Your task to perform on an android device: make emails show in primary in the gmail app Image 0: 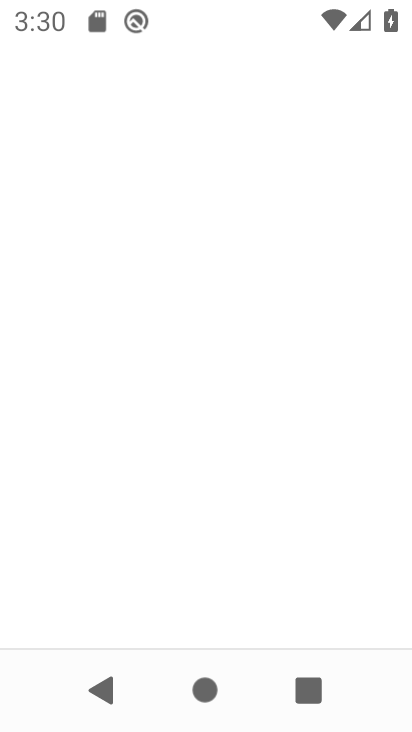
Step 0: drag from (208, 529) to (244, 103)
Your task to perform on an android device: make emails show in primary in the gmail app Image 1: 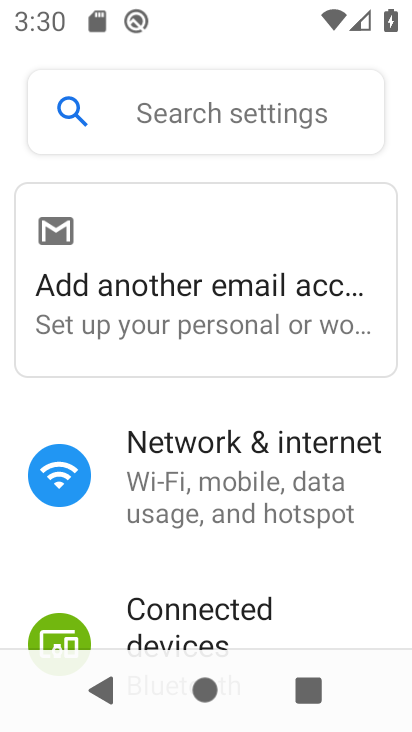
Step 1: press home button
Your task to perform on an android device: make emails show in primary in the gmail app Image 2: 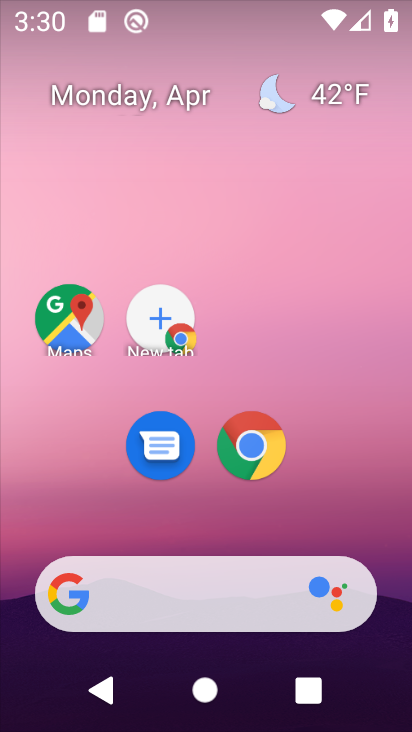
Step 2: drag from (215, 513) to (241, 73)
Your task to perform on an android device: make emails show in primary in the gmail app Image 3: 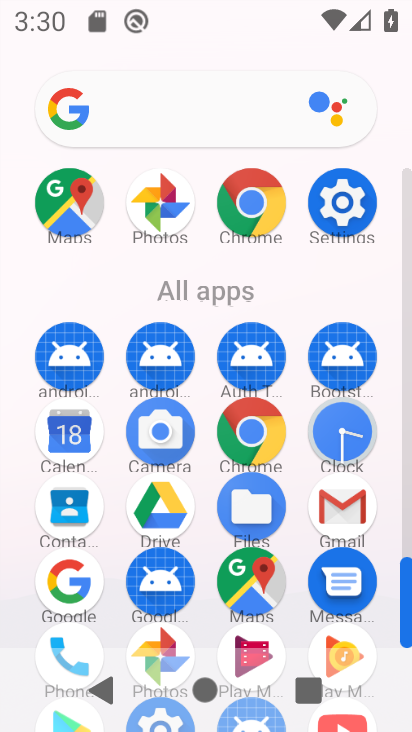
Step 3: click (339, 493)
Your task to perform on an android device: make emails show in primary in the gmail app Image 4: 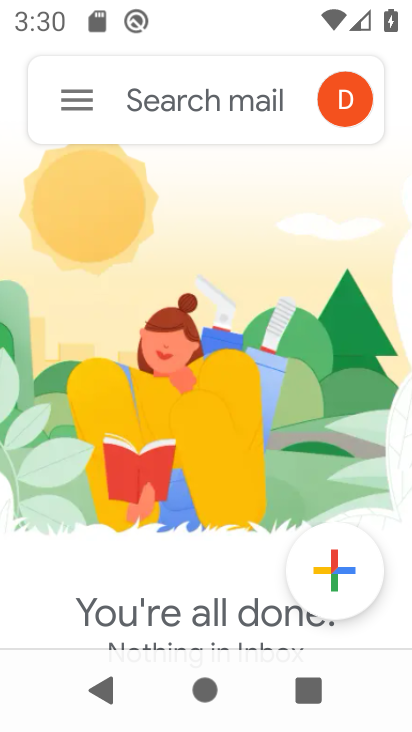
Step 4: click (66, 95)
Your task to perform on an android device: make emails show in primary in the gmail app Image 5: 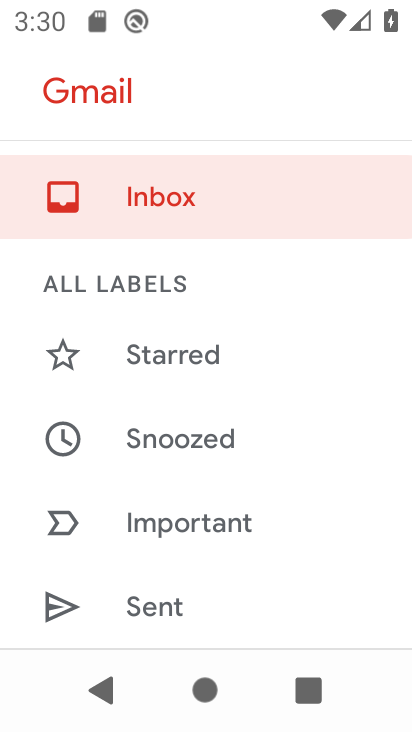
Step 5: drag from (208, 583) to (238, 70)
Your task to perform on an android device: make emails show in primary in the gmail app Image 6: 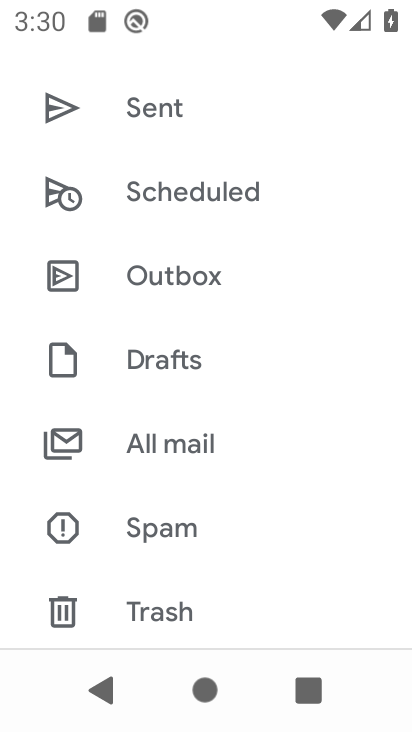
Step 6: drag from (218, 594) to (235, 119)
Your task to perform on an android device: make emails show in primary in the gmail app Image 7: 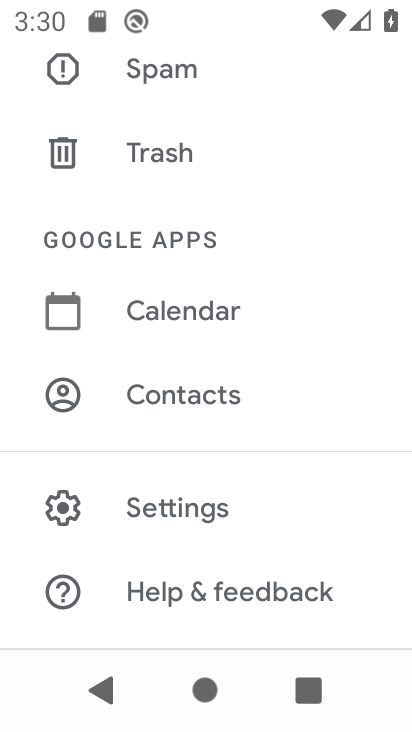
Step 7: click (231, 502)
Your task to perform on an android device: make emails show in primary in the gmail app Image 8: 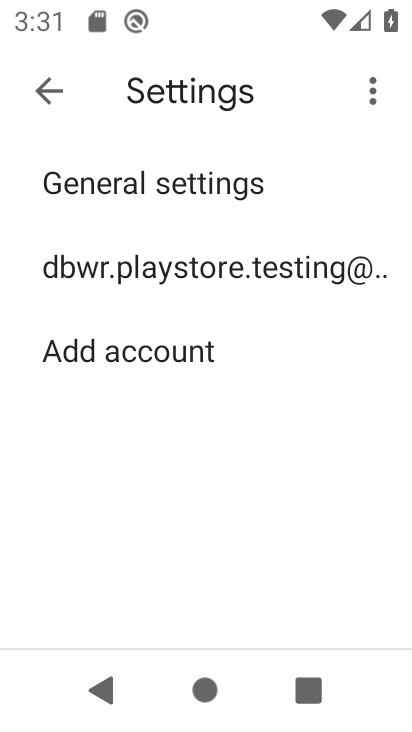
Step 8: click (248, 265)
Your task to perform on an android device: make emails show in primary in the gmail app Image 9: 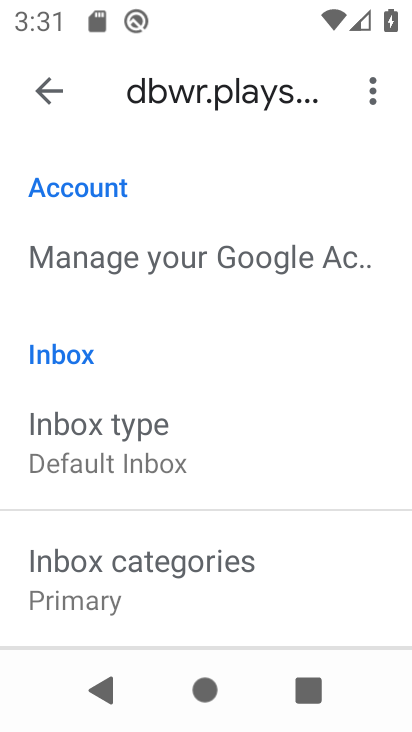
Step 9: click (189, 457)
Your task to perform on an android device: make emails show in primary in the gmail app Image 10: 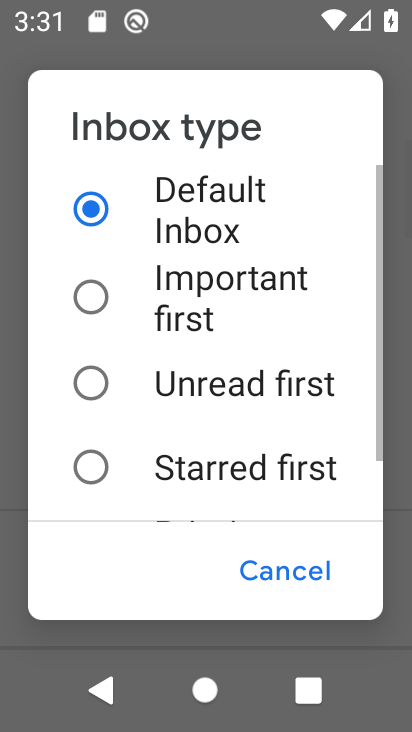
Step 10: click (106, 200)
Your task to perform on an android device: make emails show in primary in the gmail app Image 11: 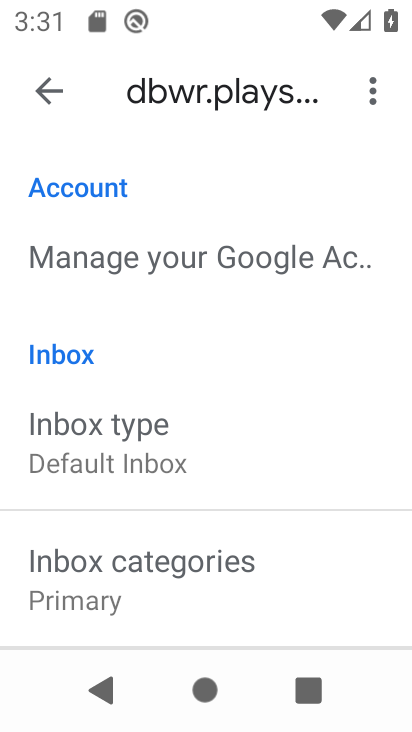
Step 11: task complete